Your task to perform on an android device: add a contact in the contacts app Image 0: 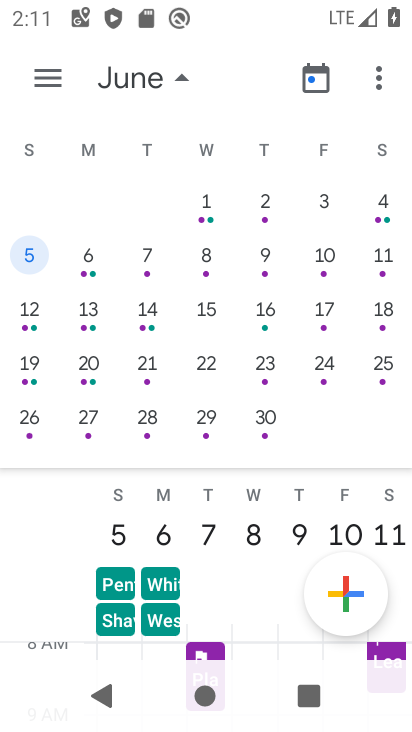
Step 0: press home button
Your task to perform on an android device: add a contact in the contacts app Image 1: 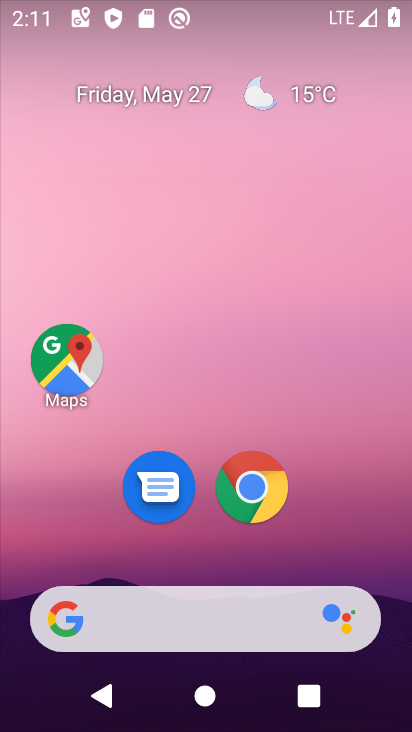
Step 1: drag from (322, 529) to (297, 114)
Your task to perform on an android device: add a contact in the contacts app Image 2: 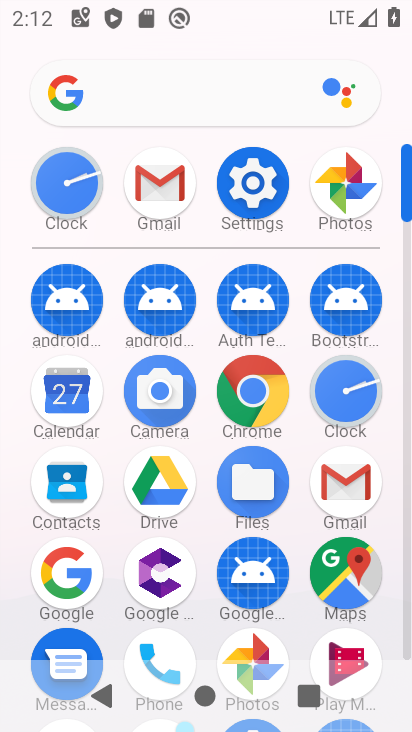
Step 2: click (78, 494)
Your task to perform on an android device: add a contact in the contacts app Image 3: 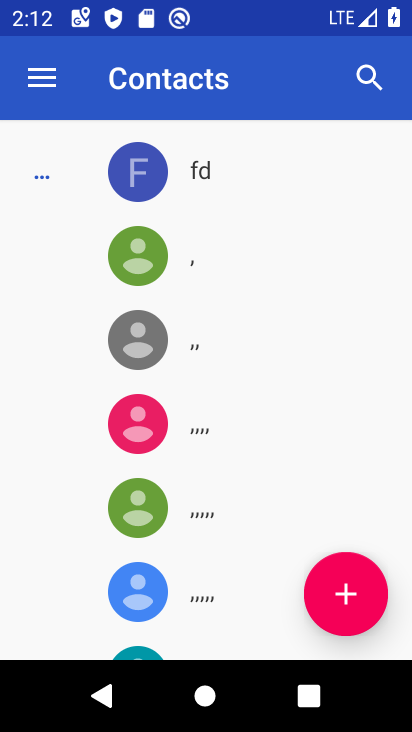
Step 3: click (350, 596)
Your task to perform on an android device: add a contact in the contacts app Image 4: 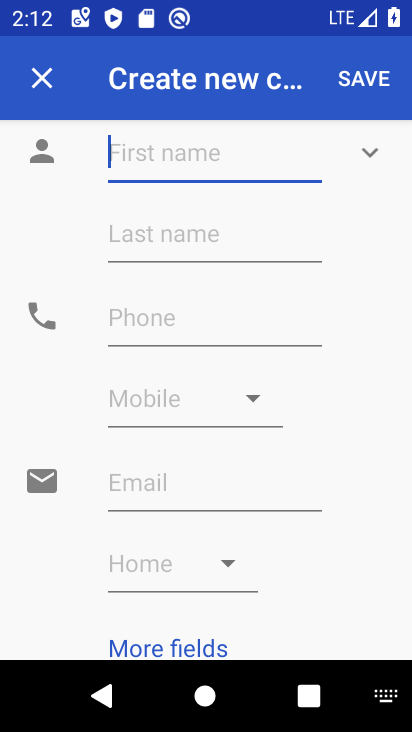
Step 4: type "fvaas"
Your task to perform on an android device: add a contact in the contacts app Image 5: 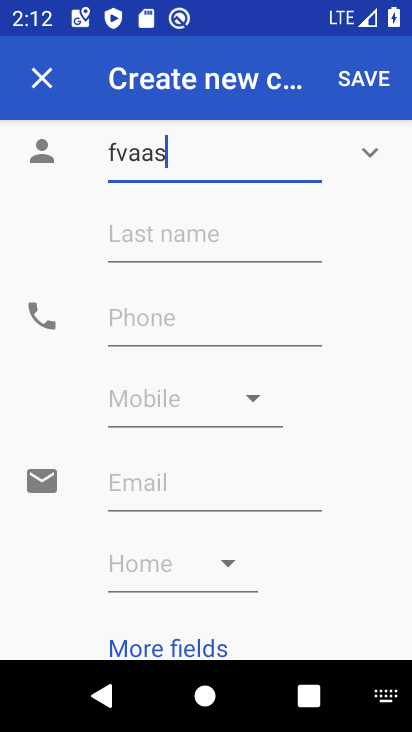
Step 5: type ""
Your task to perform on an android device: add a contact in the contacts app Image 6: 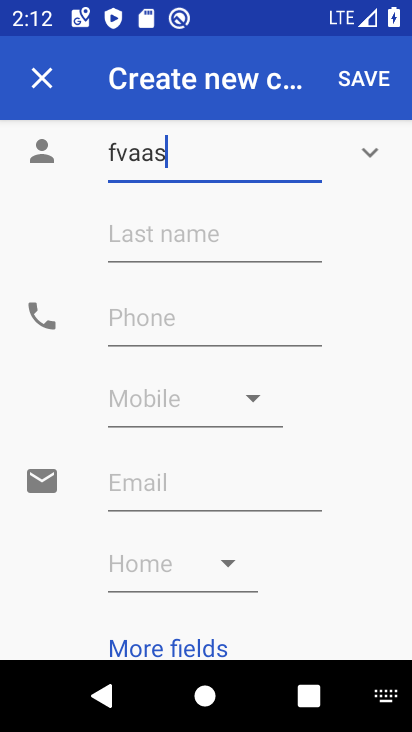
Step 6: click (381, 82)
Your task to perform on an android device: add a contact in the contacts app Image 7: 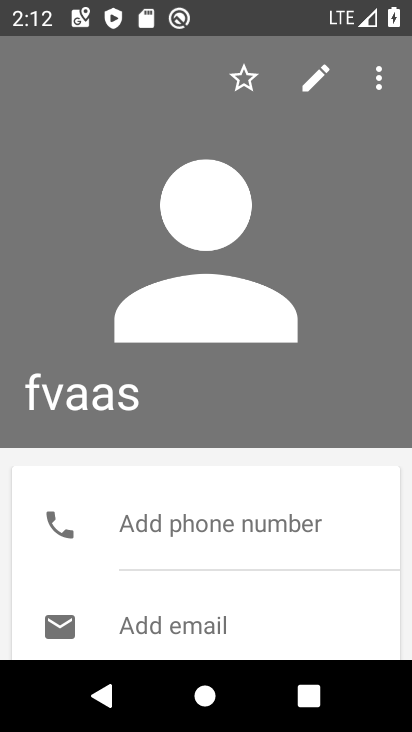
Step 7: task complete